Your task to perform on an android device: Open Reddit.com Image 0: 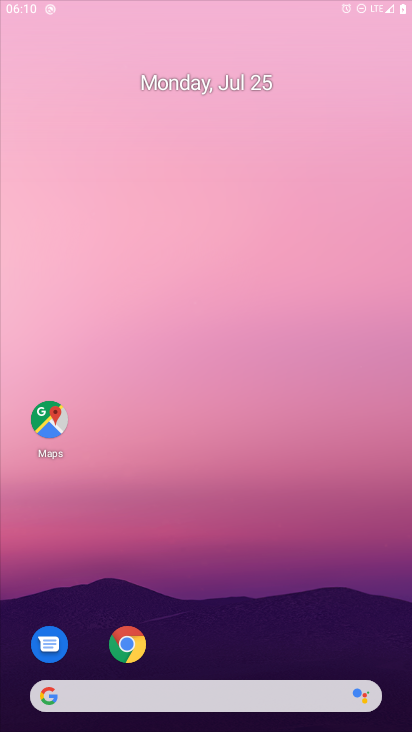
Step 0: press home button
Your task to perform on an android device: Open Reddit.com Image 1: 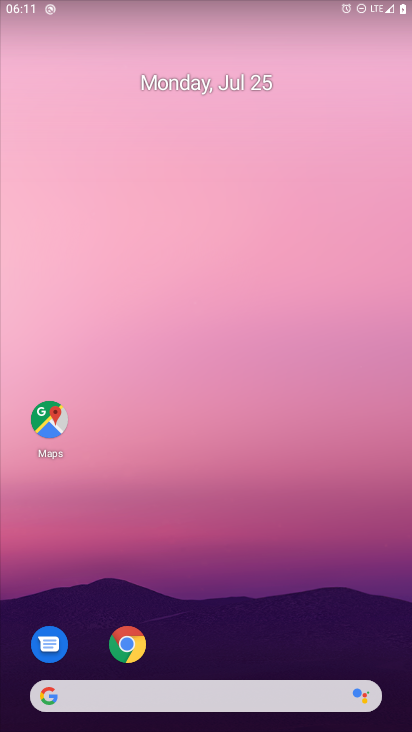
Step 1: click (53, 704)
Your task to perform on an android device: Open Reddit.com Image 2: 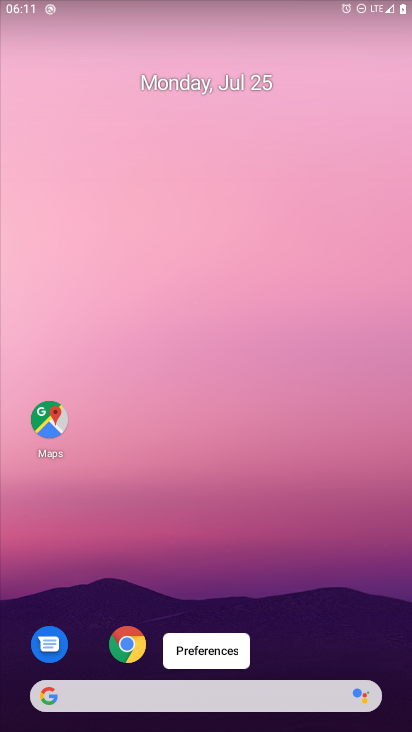
Step 2: click (52, 691)
Your task to perform on an android device: Open Reddit.com Image 3: 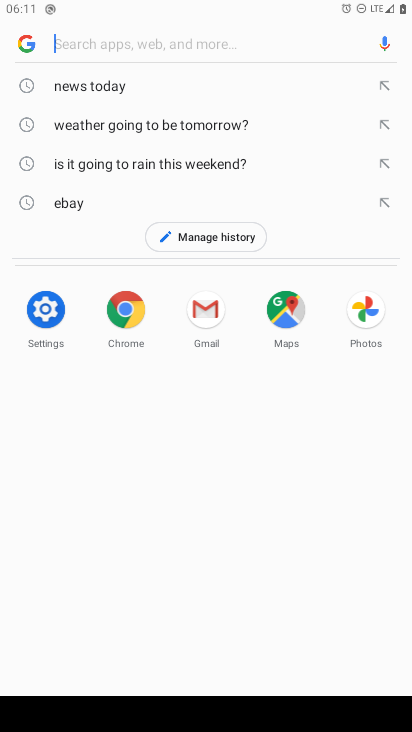
Step 3: click (280, 556)
Your task to perform on an android device: Open Reddit.com Image 4: 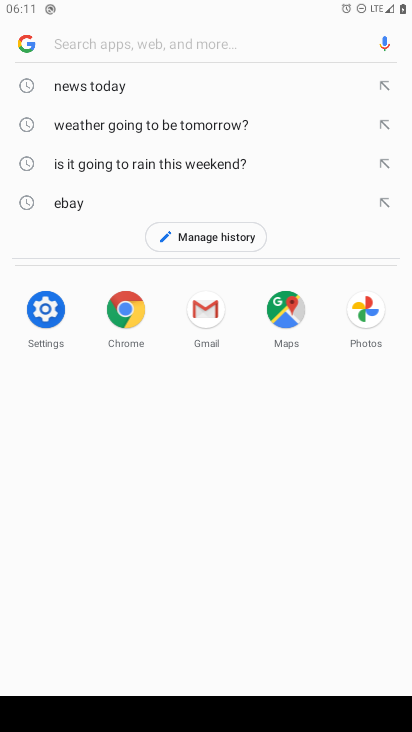
Step 4: type "Reddit.com"
Your task to perform on an android device: Open Reddit.com Image 5: 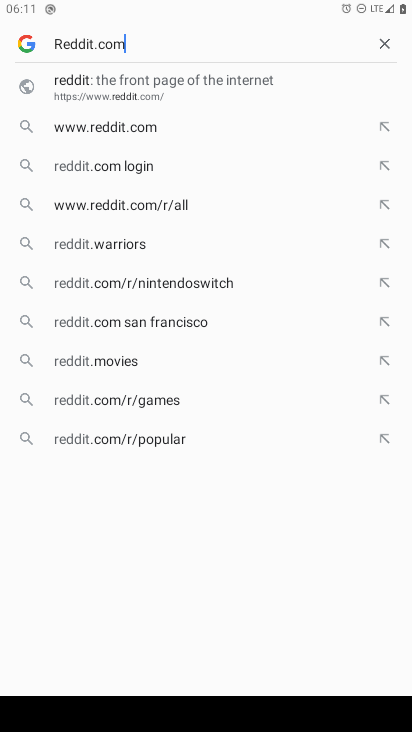
Step 5: press enter
Your task to perform on an android device: Open Reddit.com Image 6: 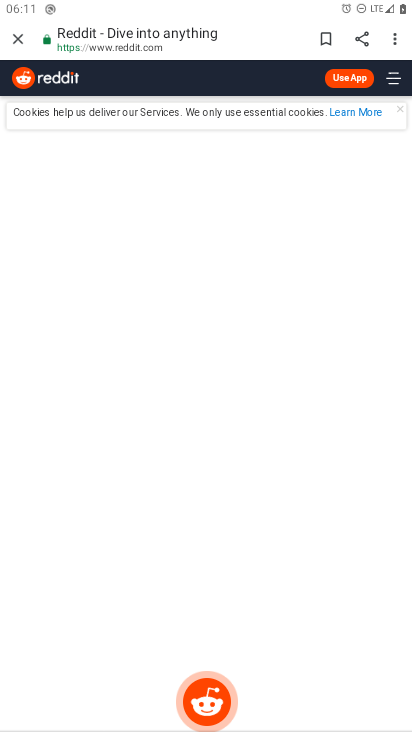
Step 6: task complete